Your task to perform on an android device: Toggle the flashlight Image 0: 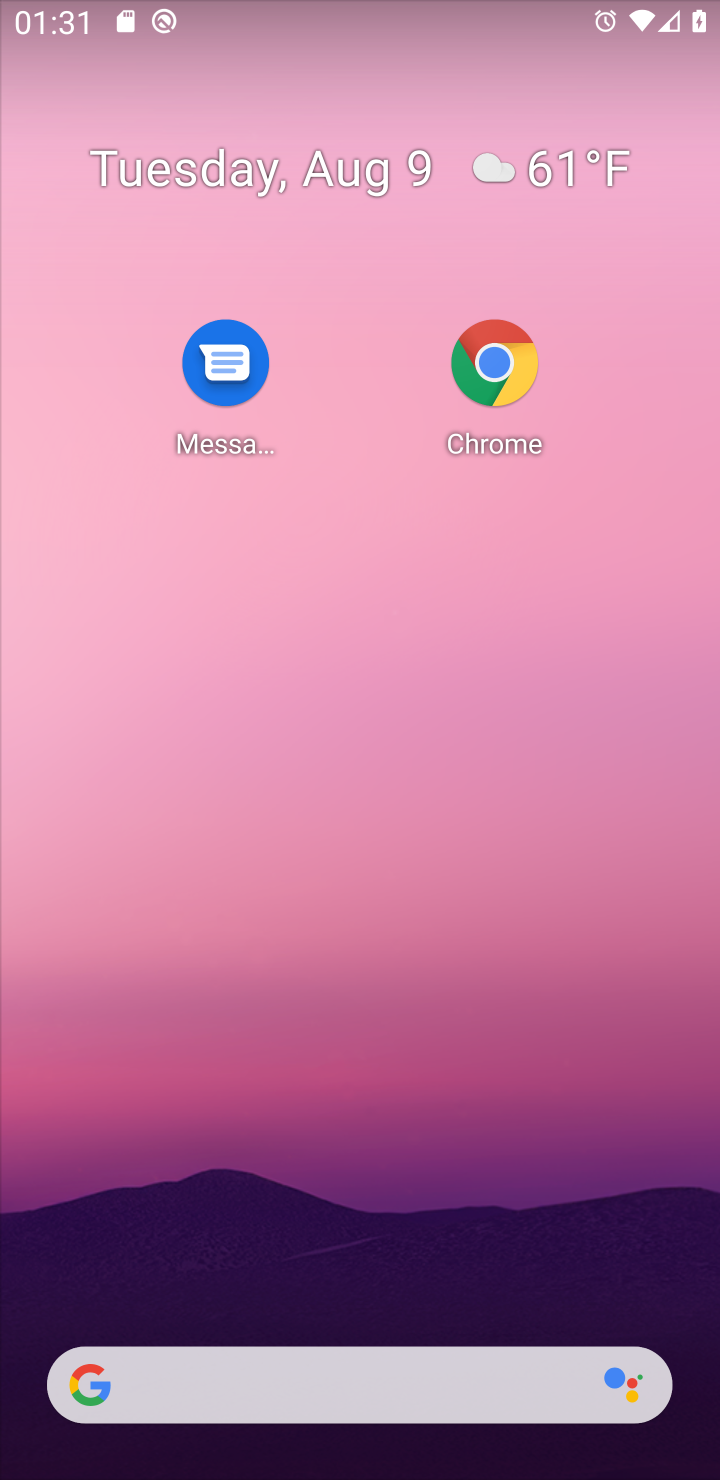
Step 0: drag from (453, 764) to (488, 388)
Your task to perform on an android device: Toggle the flashlight Image 1: 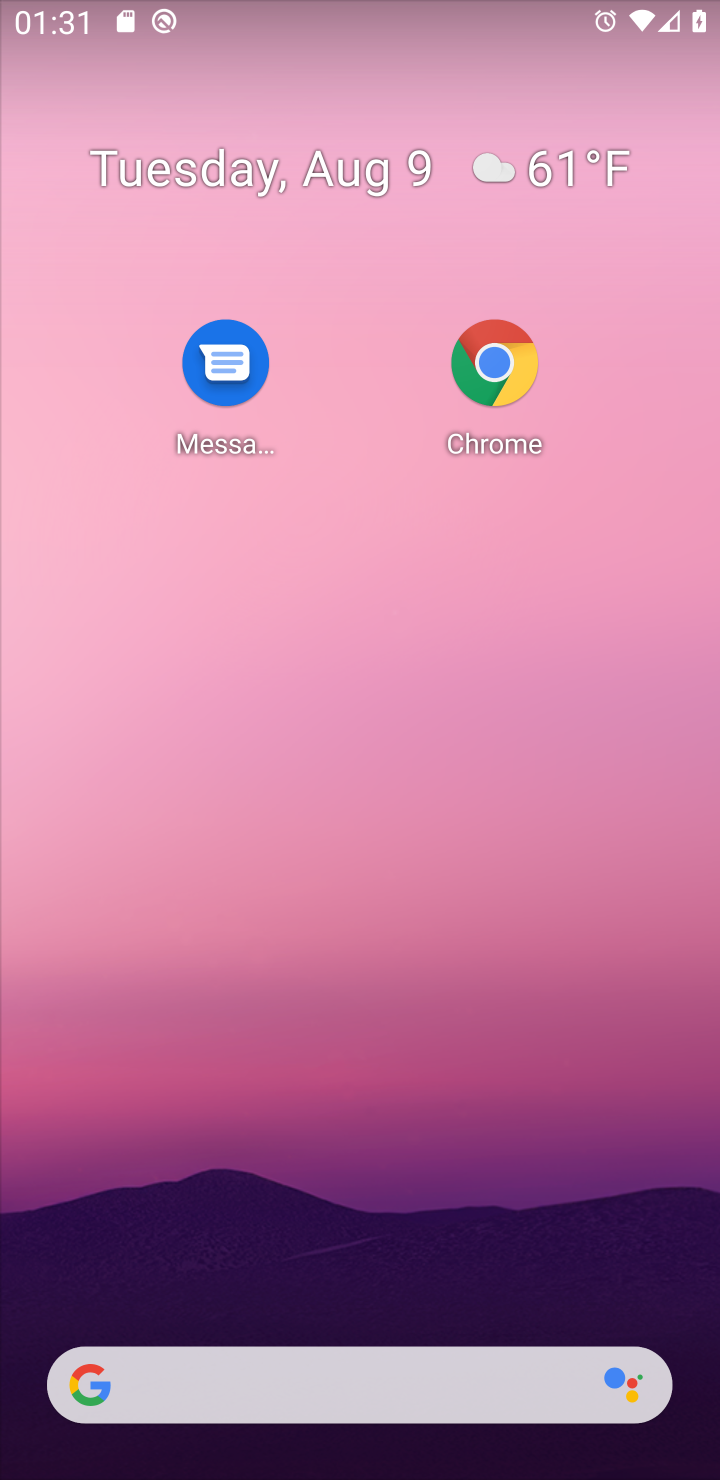
Step 1: drag from (349, 1067) to (389, 244)
Your task to perform on an android device: Toggle the flashlight Image 2: 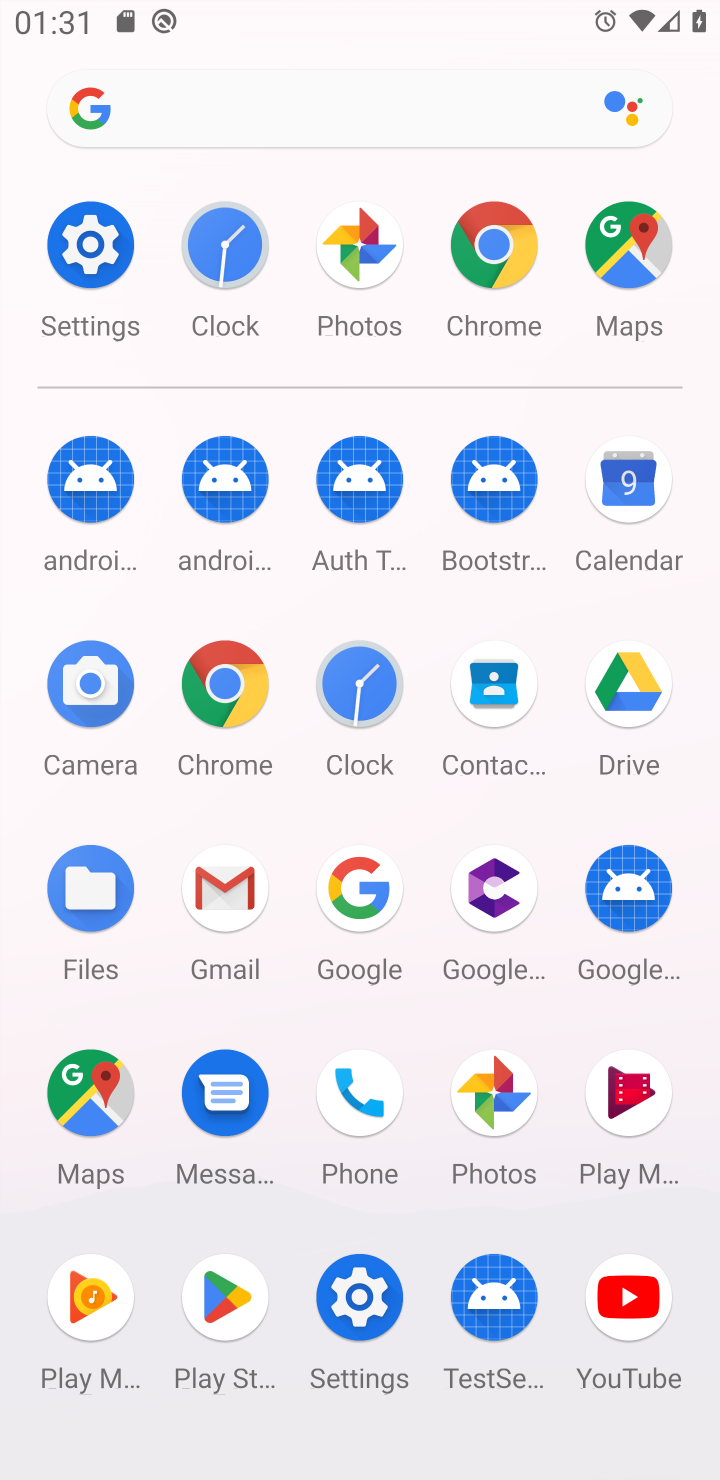
Step 2: click (113, 264)
Your task to perform on an android device: Toggle the flashlight Image 3: 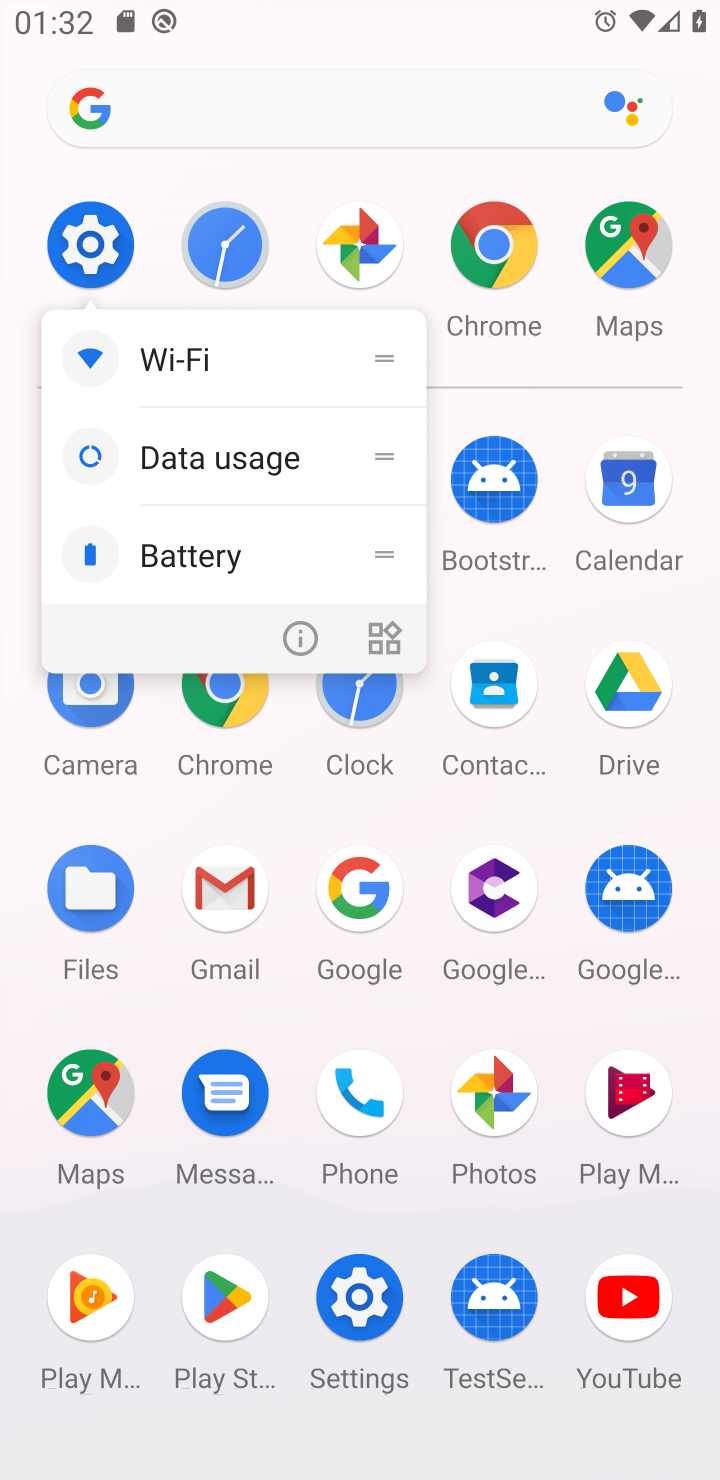
Step 3: click (113, 264)
Your task to perform on an android device: Toggle the flashlight Image 4: 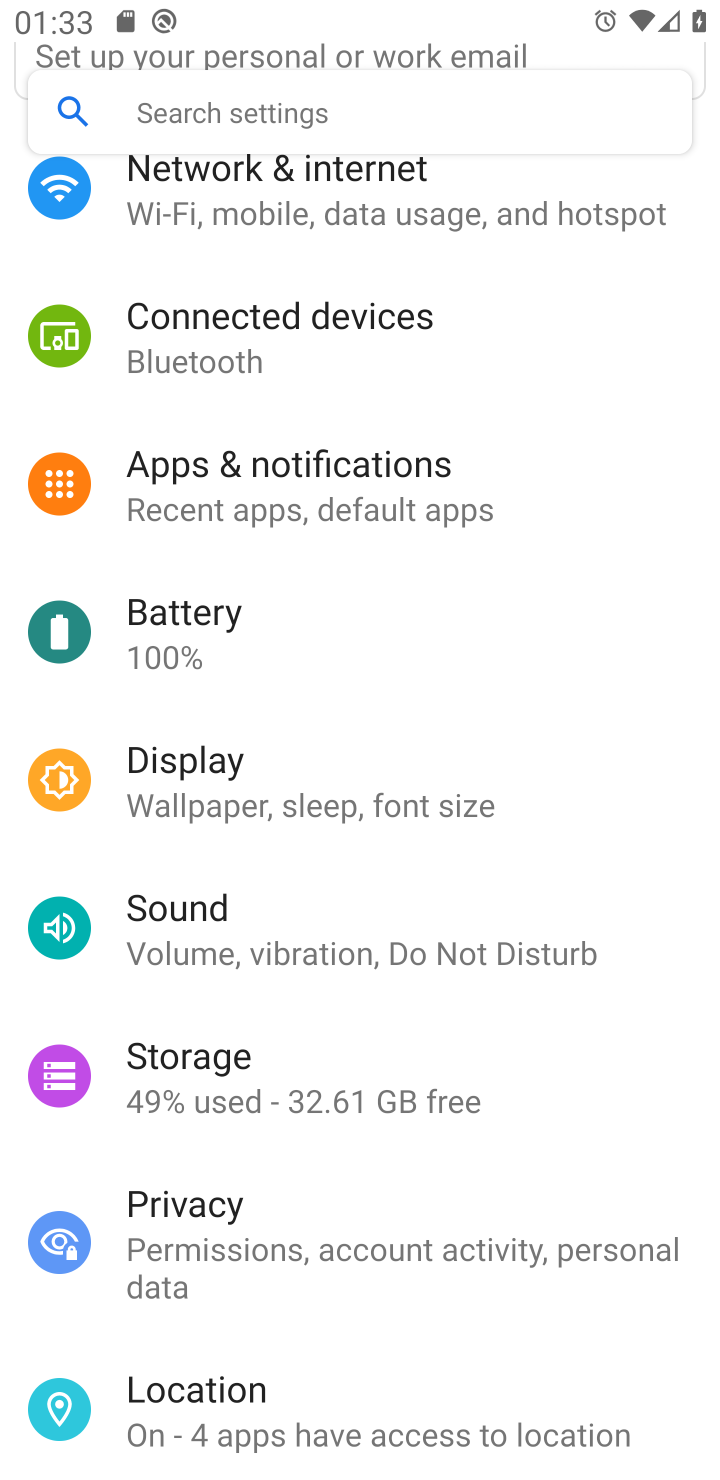
Step 4: task complete